Your task to perform on an android device: Go to battery settings Image 0: 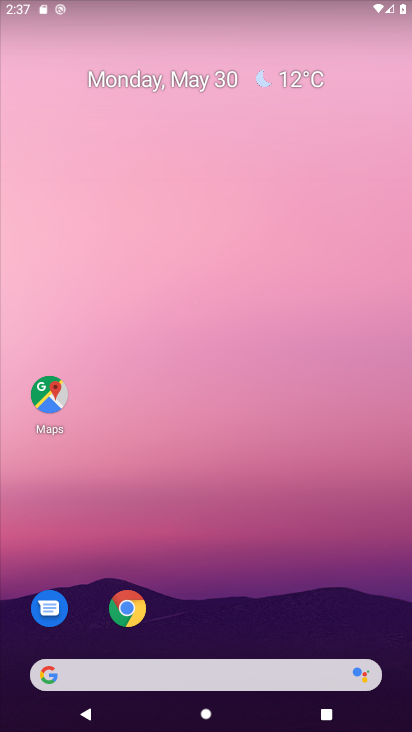
Step 0: drag from (247, 271) to (196, 42)
Your task to perform on an android device: Go to battery settings Image 1: 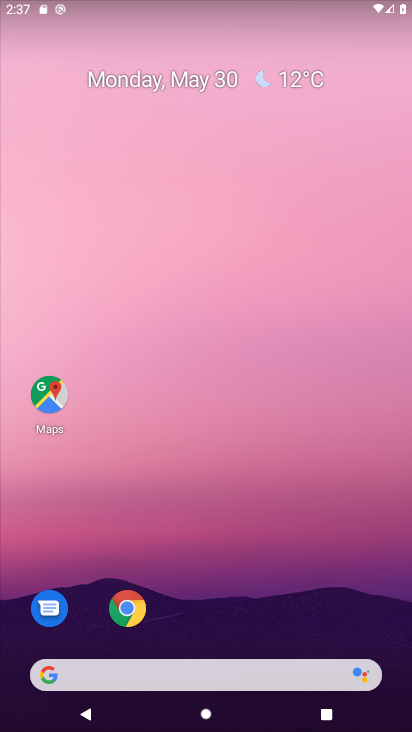
Step 1: drag from (254, 598) to (184, 29)
Your task to perform on an android device: Go to battery settings Image 2: 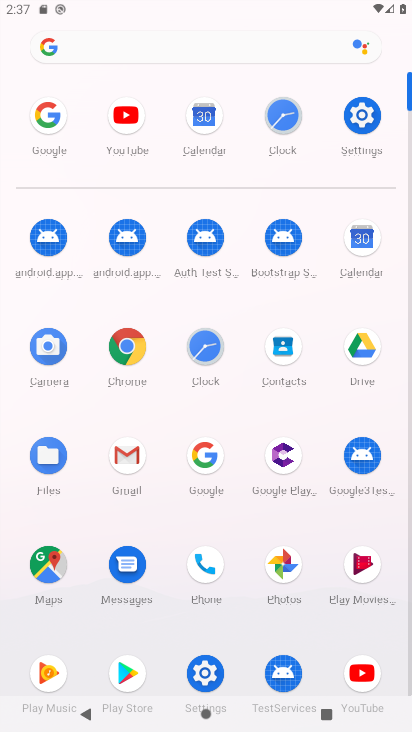
Step 2: click (361, 117)
Your task to perform on an android device: Go to battery settings Image 3: 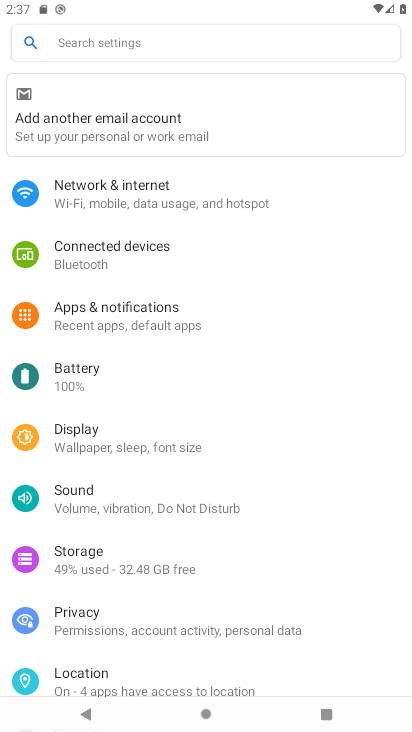
Step 3: click (133, 378)
Your task to perform on an android device: Go to battery settings Image 4: 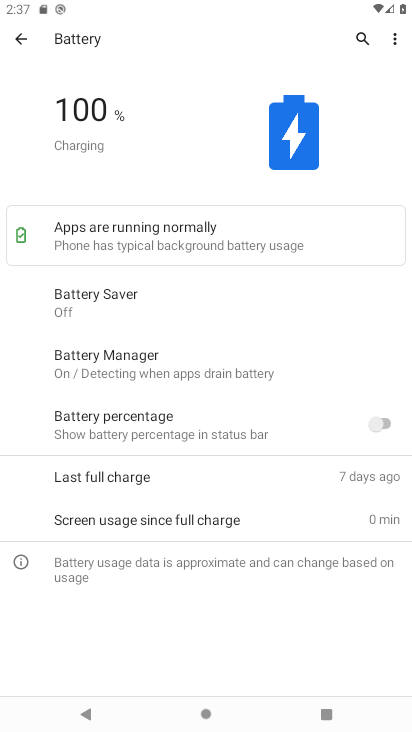
Step 4: task complete